Your task to perform on an android device: all mails in gmail Image 0: 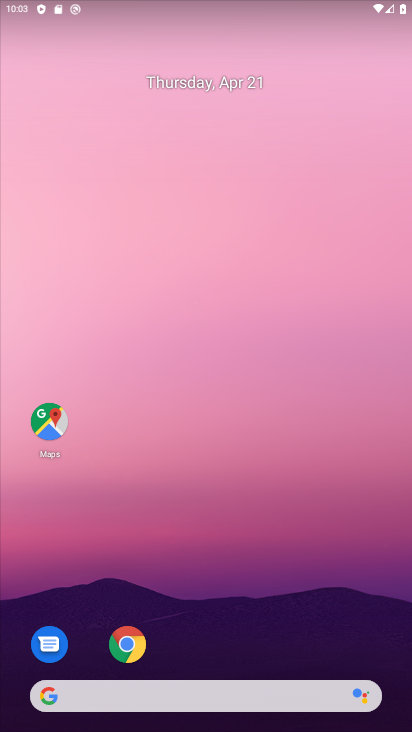
Step 0: click (127, 652)
Your task to perform on an android device: all mails in gmail Image 1: 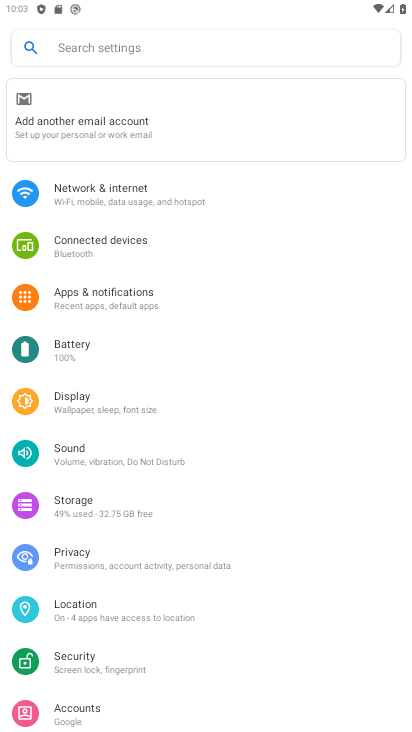
Step 1: press back button
Your task to perform on an android device: all mails in gmail Image 2: 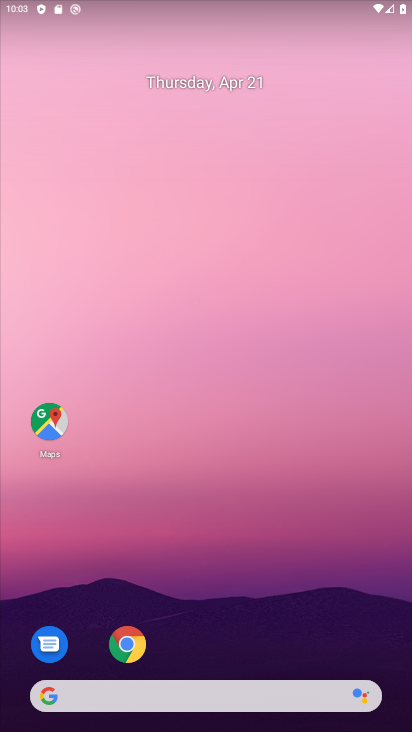
Step 2: click (130, 652)
Your task to perform on an android device: all mails in gmail Image 3: 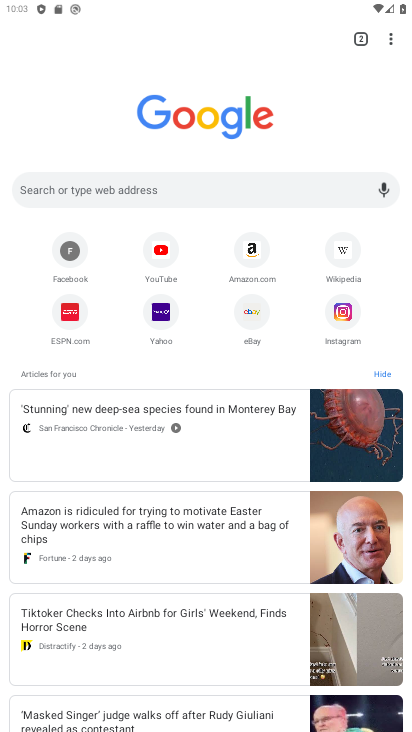
Step 3: click (390, 39)
Your task to perform on an android device: all mails in gmail Image 4: 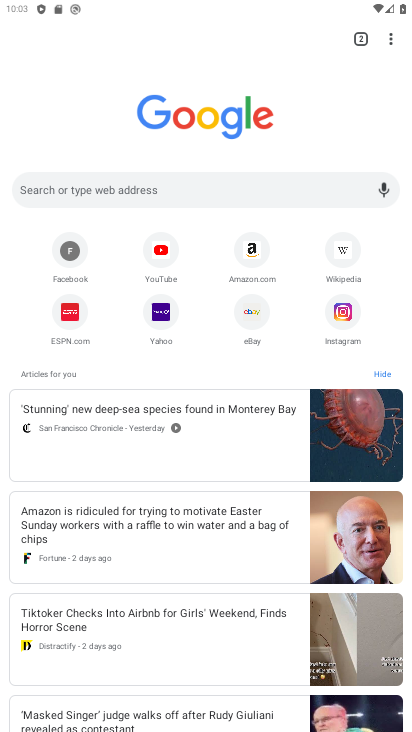
Step 4: click (392, 42)
Your task to perform on an android device: all mails in gmail Image 5: 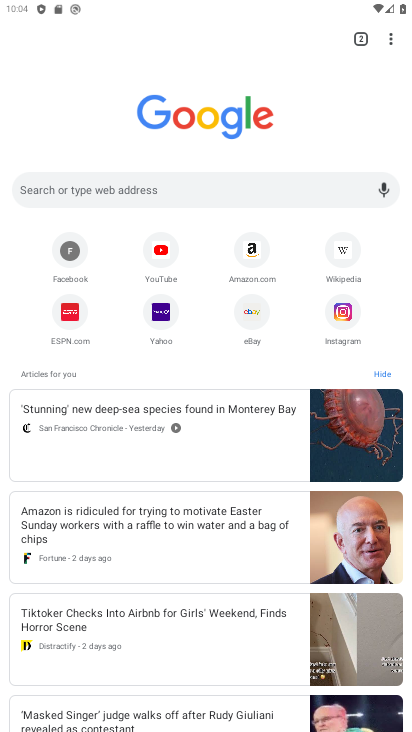
Step 5: press back button
Your task to perform on an android device: all mails in gmail Image 6: 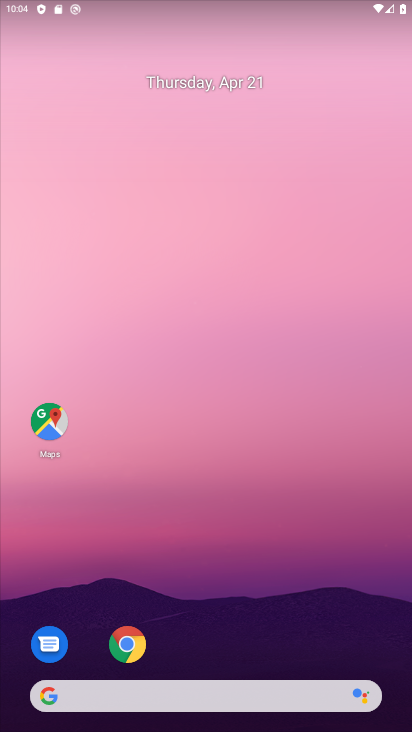
Step 6: drag from (271, 611) to (34, 122)
Your task to perform on an android device: all mails in gmail Image 7: 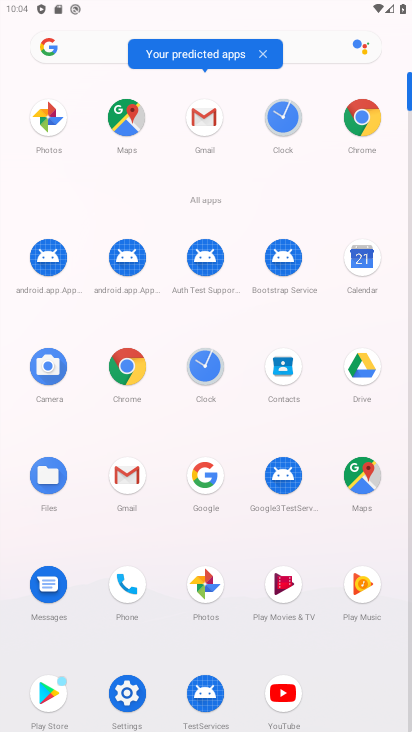
Step 7: click (199, 121)
Your task to perform on an android device: all mails in gmail Image 8: 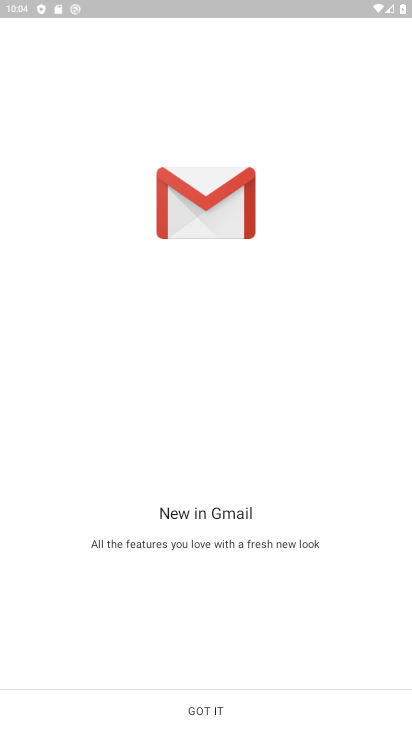
Step 8: click (205, 712)
Your task to perform on an android device: all mails in gmail Image 9: 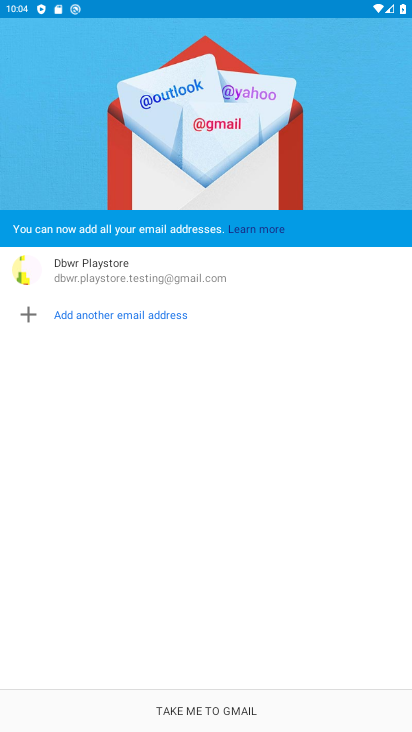
Step 9: click (206, 706)
Your task to perform on an android device: all mails in gmail Image 10: 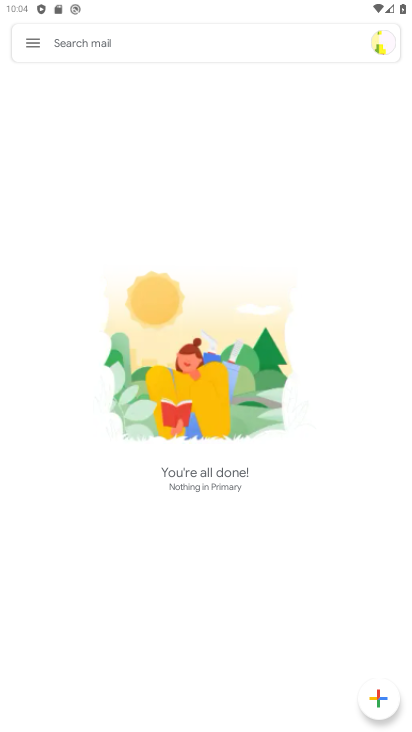
Step 10: click (33, 47)
Your task to perform on an android device: all mails in gmail Image 11: 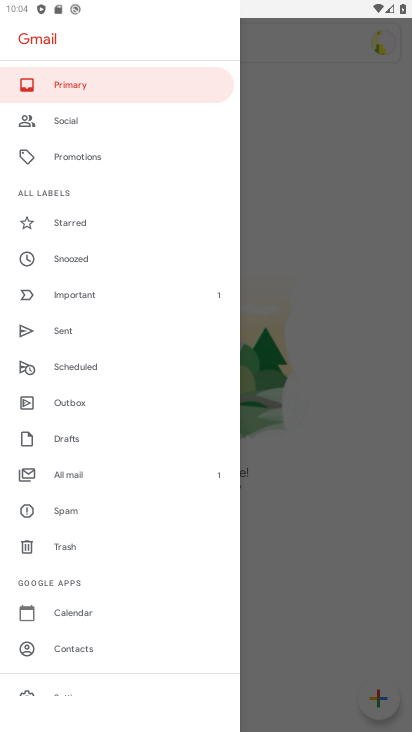
Step 11: click (66, 478)
Your task to perform on an android device: all mails in gmail Image 12: 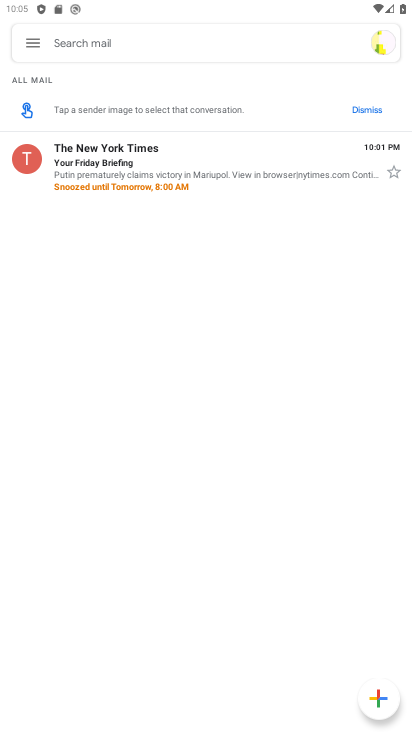
Step 12: task complete